Your task to perform on an android device: Toggle the flashlight Image 0: 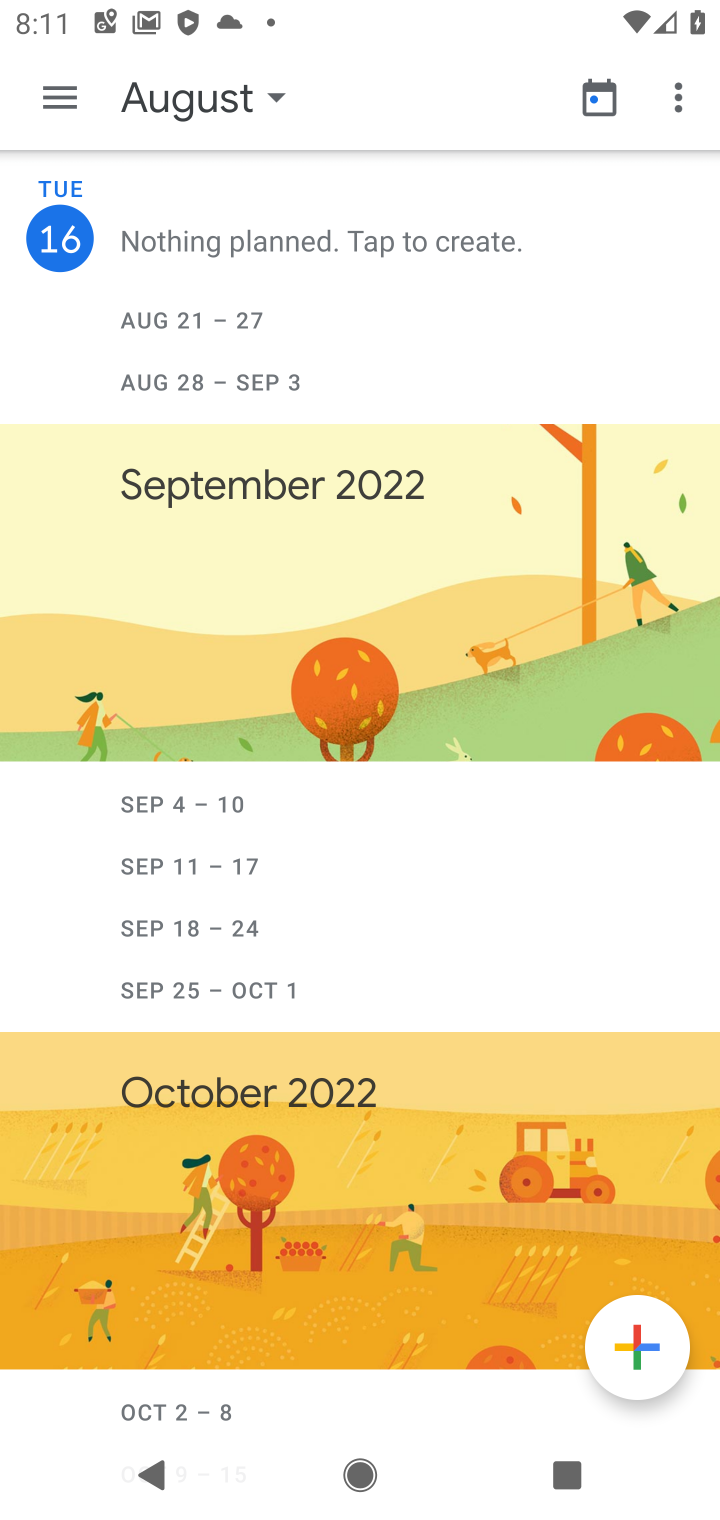
Step 0: press home button
Your task to perform on an android device: Toggle the flashlight Image 1: 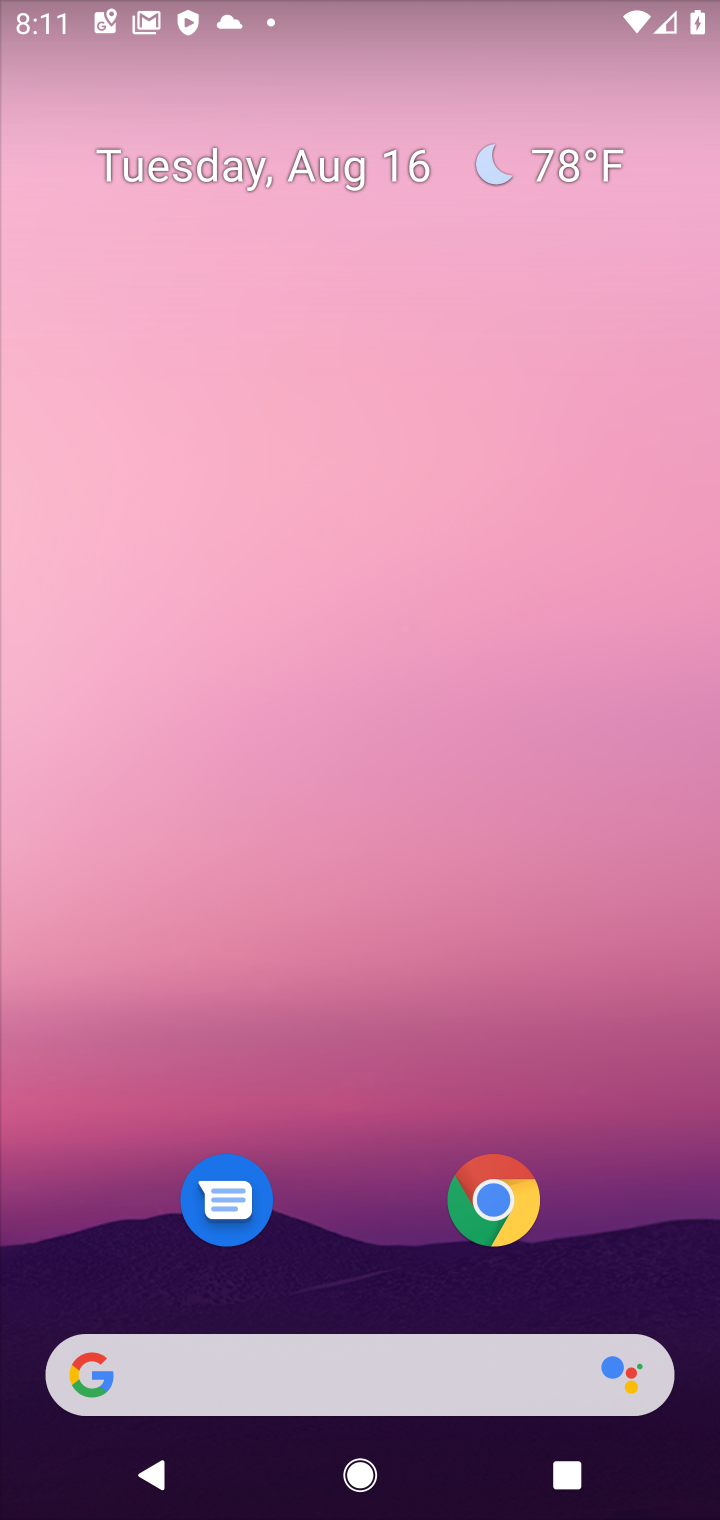
Step 1: drag from (383, 27) to (370, 1161)
Your task to perform on an android device: Toggle the flashlight Image 2: 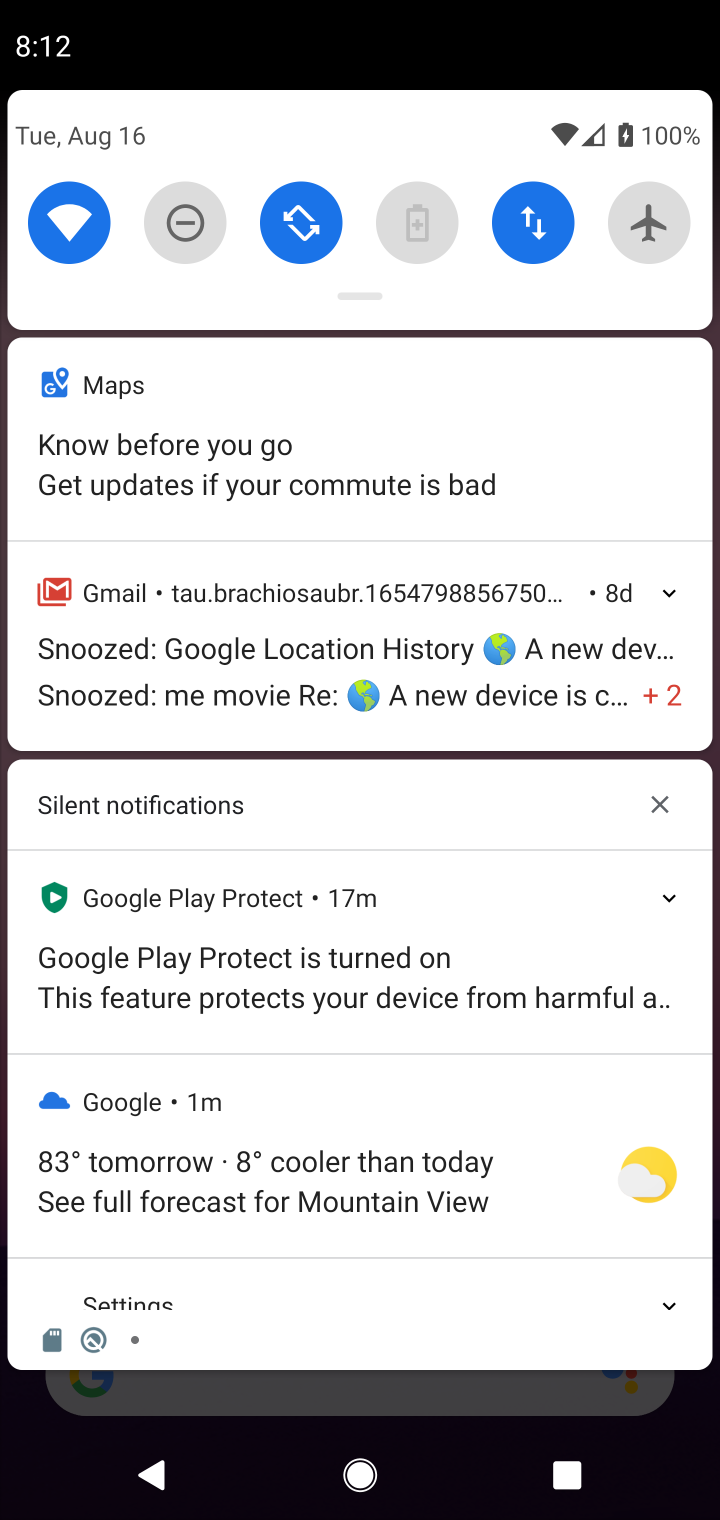
Step 2: drag from (357, 299) to (355, 850)
Your task to perform on an android device: Toggle the flashlight Image 3: 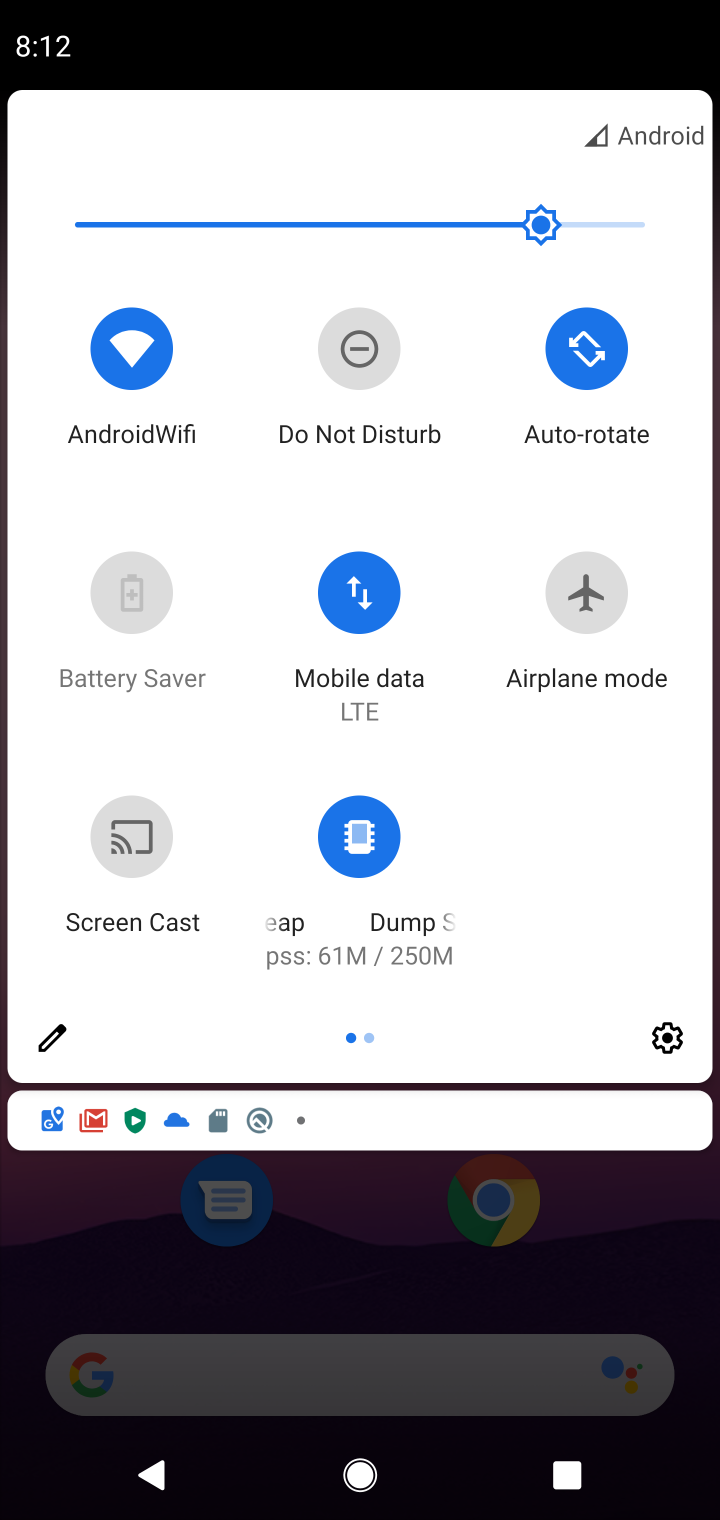
Step 3: click (42, 1023)
Your task to perform on an android device: Toggle the flashlight Image 4: 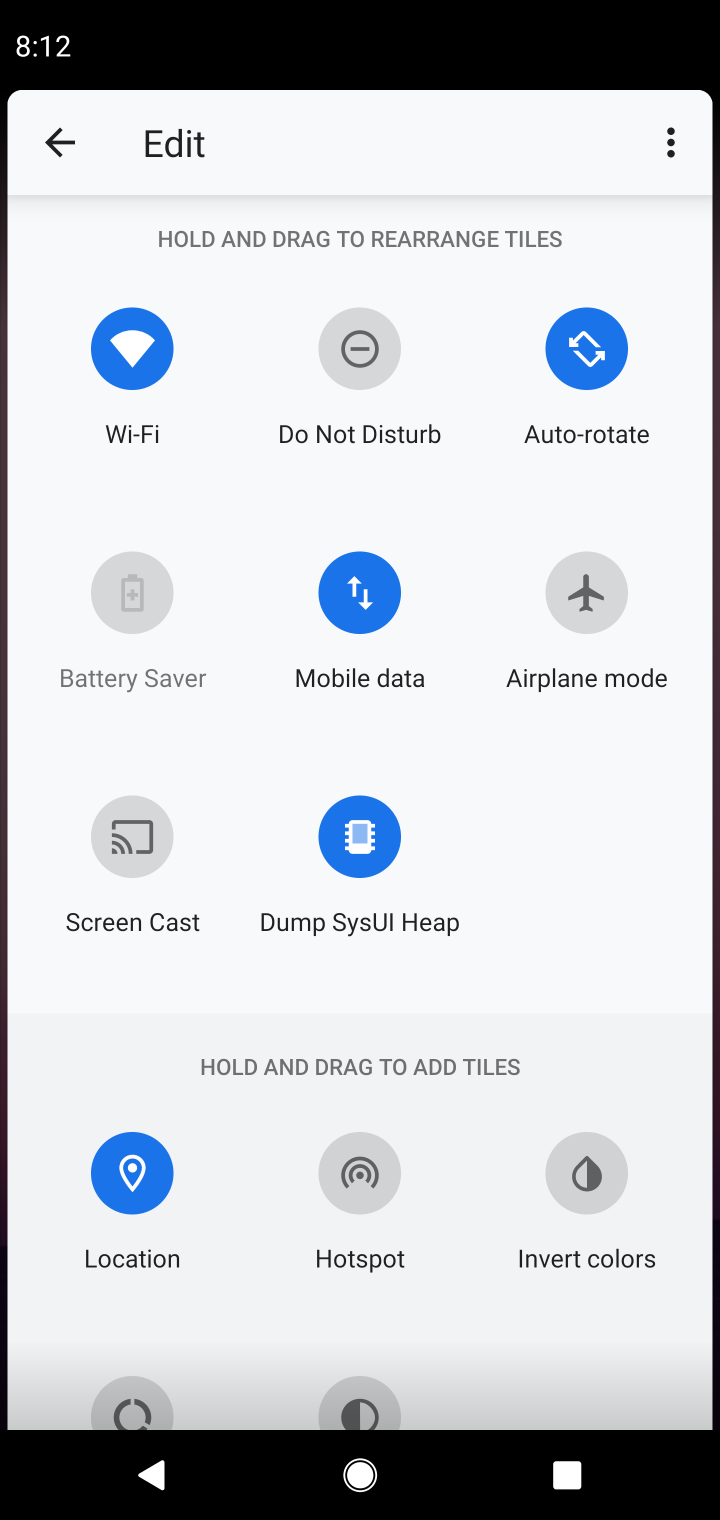
Step 4: task complete